Your task to perform on an android device: Go to Google maps Image 0: 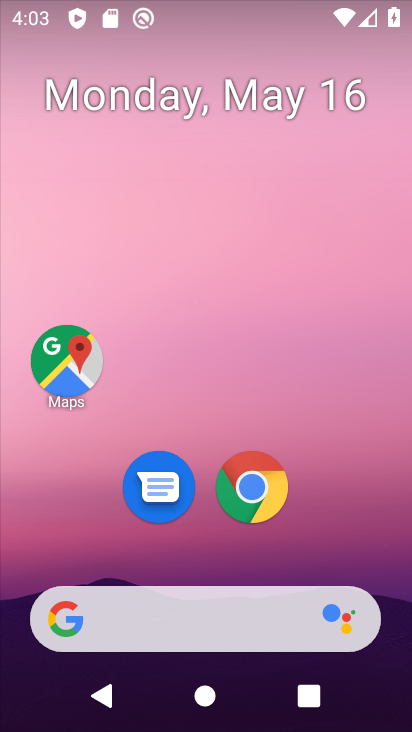
Step 0: click (65, 363)
Your task to perform on an android device: Go to Google maps Image 1: 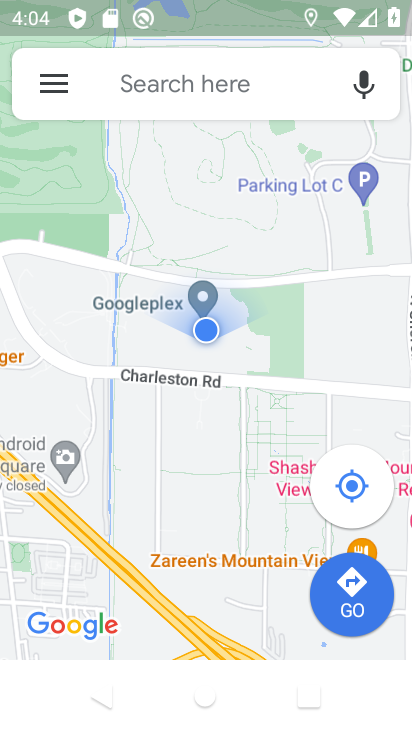
Step 1: task complete